Your task to perform on an android device: open a new tab in the chrome app Image 0: 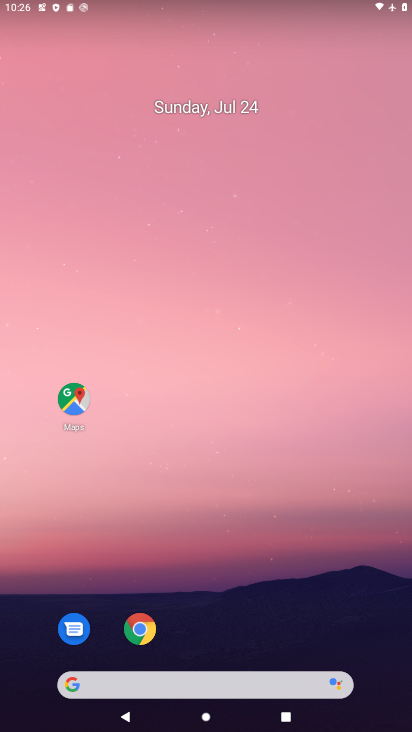
Step 0: task complete